Your task to perform on an android device: Go to Google maps Image 0: 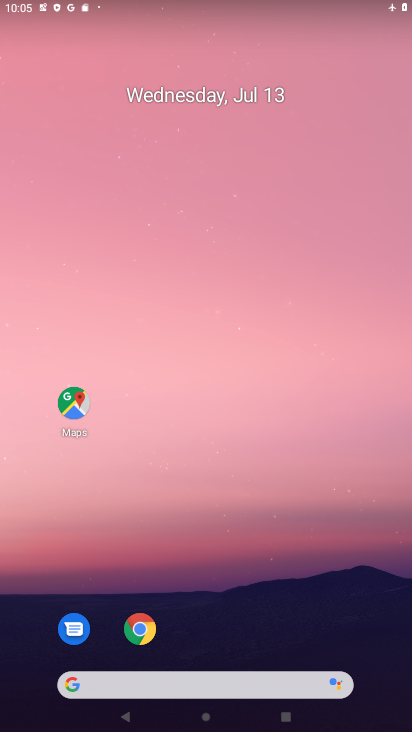
Step 0: drag from (265, 615) to (232, 55)
Your task to perform on an android device: Go to Google maps Image 1: 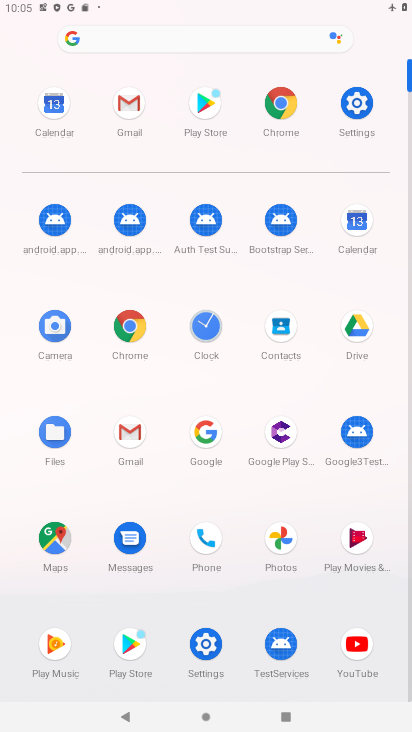
Step 1: click (43, 560)
Your task to perform on an android device: Go to Google maps Image 2: 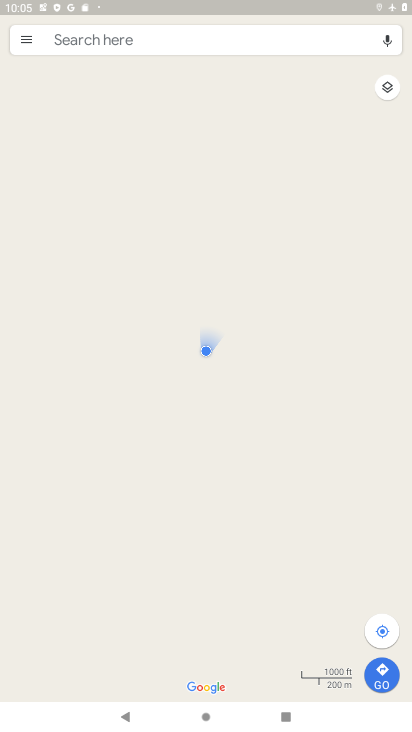
Step 2: task complete